Your task to perform on an android device: What is the recent news? Image 0: 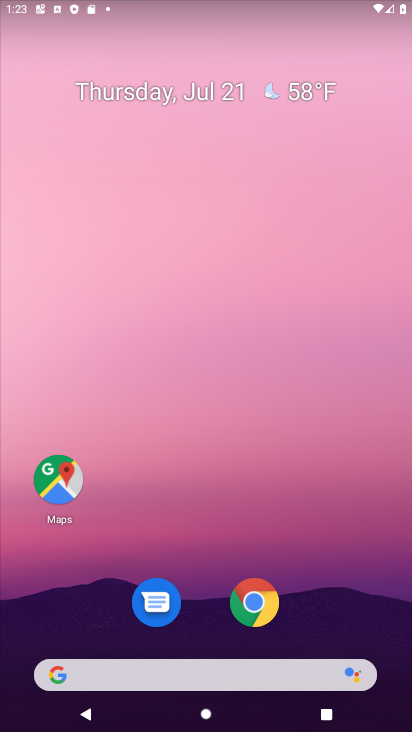
Step 0: drag from (356, 597) to (352, 0)
Your task to perform on an android device: What is the recent news? Image 1: 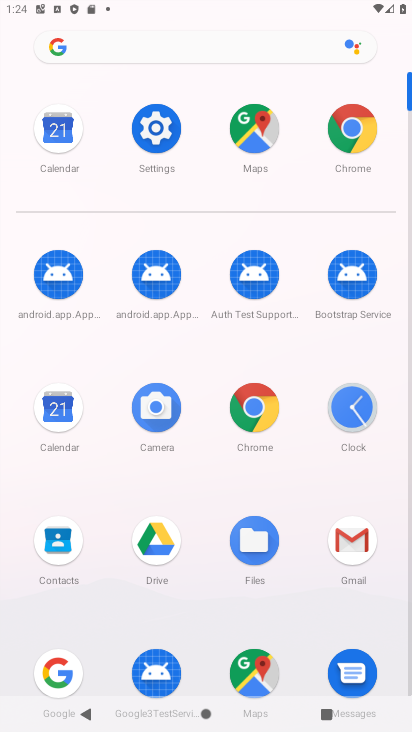
Step 1: click (51, 656)
Your task to perform on an android device: What is the recent news? Image 2: 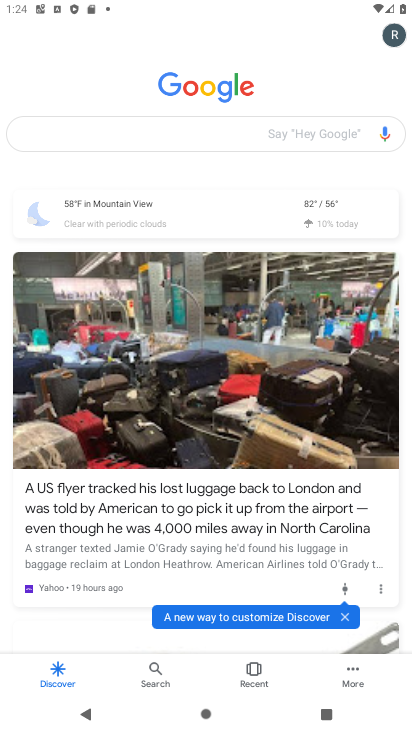
Step 2: click (163, 141)
Your task to perform on an android device: What is the recent news? Image 3: 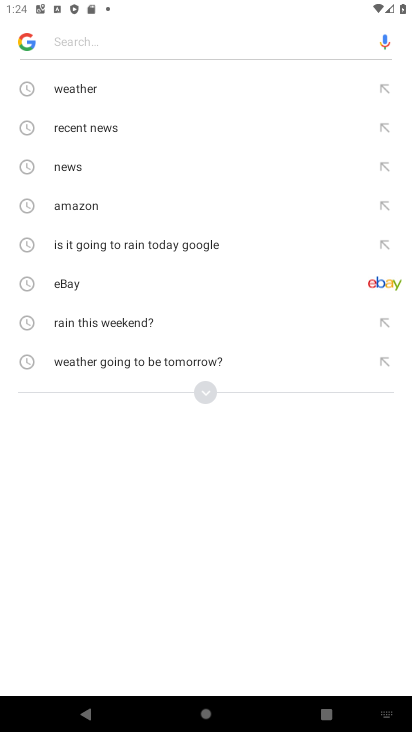
Step 3: click (84, 126)
Your task to perform on an android device: What is the recent news? Image 4: 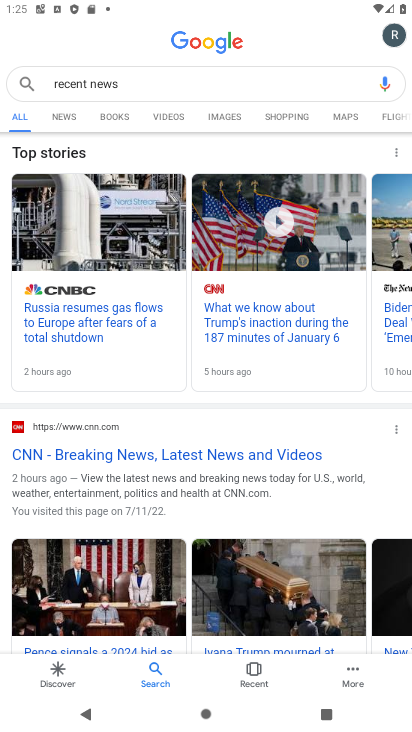
Step 4: task complete